Your task to perform on an android device: check storage Image 0: 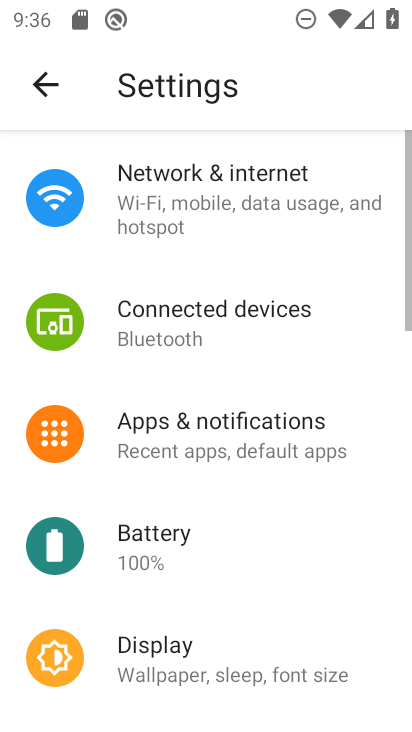
Step 0: drag from (237, 587) to (228, 294)
Your task to perform on an android device: check storage Image 1: 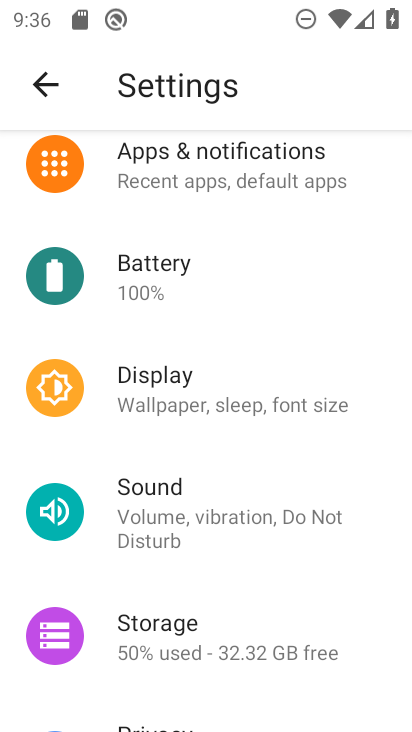
Step 1: click (156, 624)
Your task to perform on an android device: check storage Image 2: 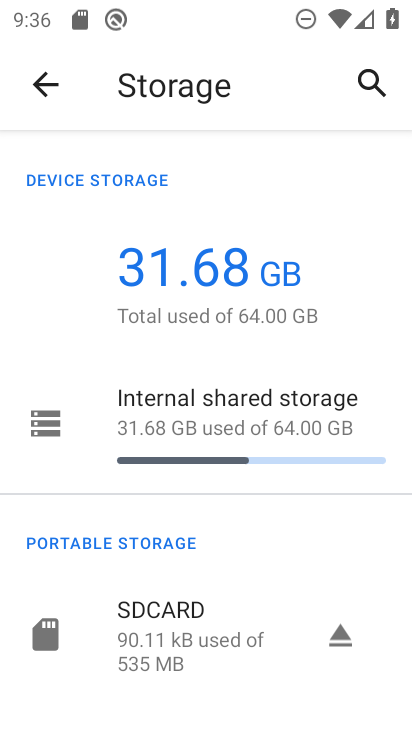
Step 2: task complete